Your task to perform on an android device: manage bookmarks in the chrome app Image 0: 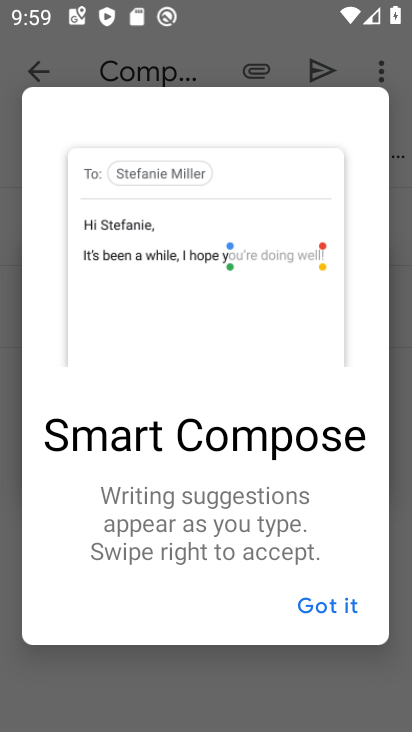
Step 0: press home button
Your task to perform on an android device: manage bookmarks in the chrome app Image 1: 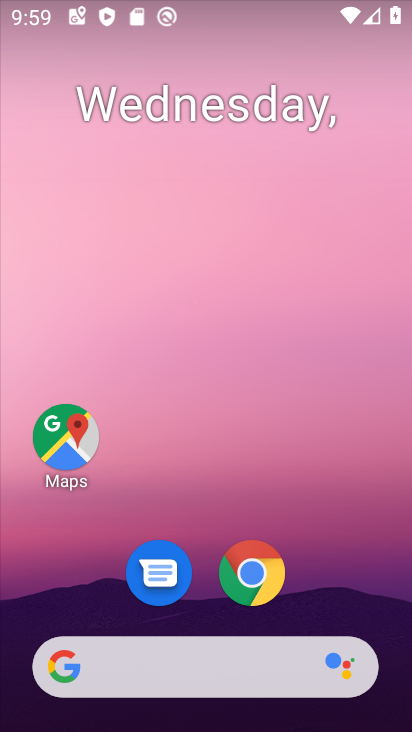
Step 1: drag from (364, 589) to (375, 252)
Your task to perform on an android device: manage bookmarks in the chrome app Image 2: 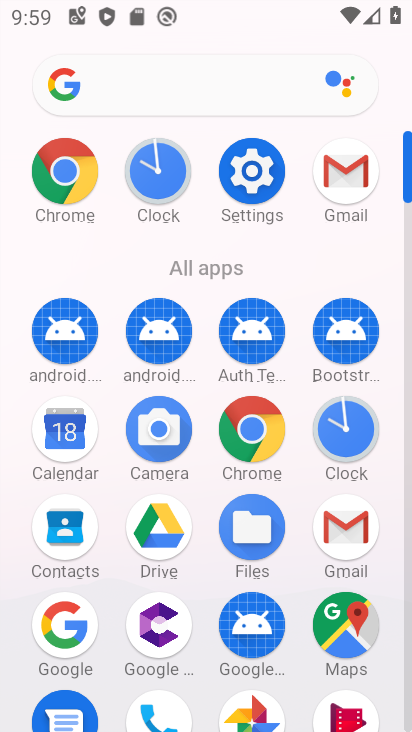
Step 2: click (273, 451)
Your task to perform on an android device: manage bookmarks in the chrome app Image 3: 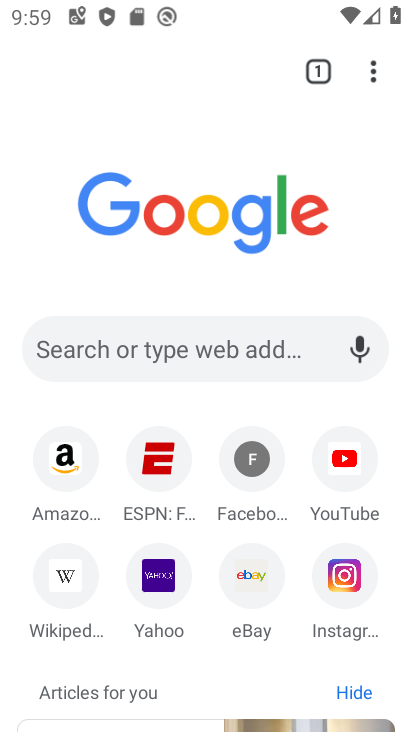
Step 3: click (373, 76)
Your task to perform on an android device: manage bookmarks in the chrome app Image 4: 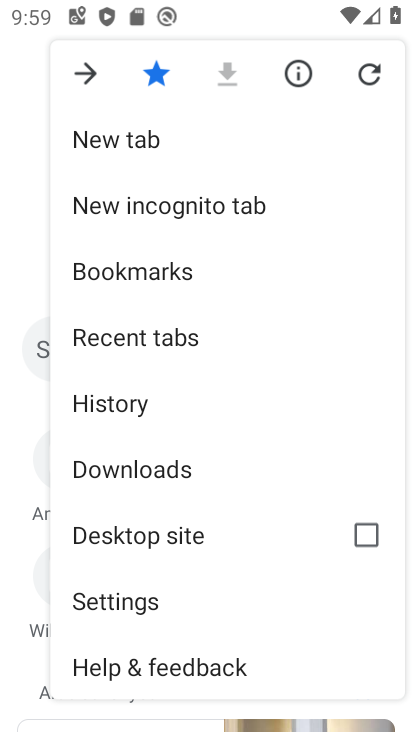
Step 4: drag from (278, 588) to (293, 452)
Your task to perform on an android device: manage bookmarks in the chrome app Image 5: 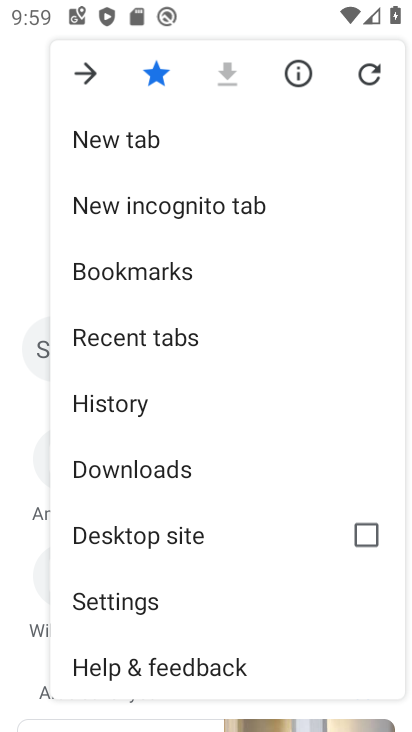
Step 5: drag from (293, 282) to (281, 488)
Your task to perform on an android device: manage bookmarks in the chrome app Image 6: 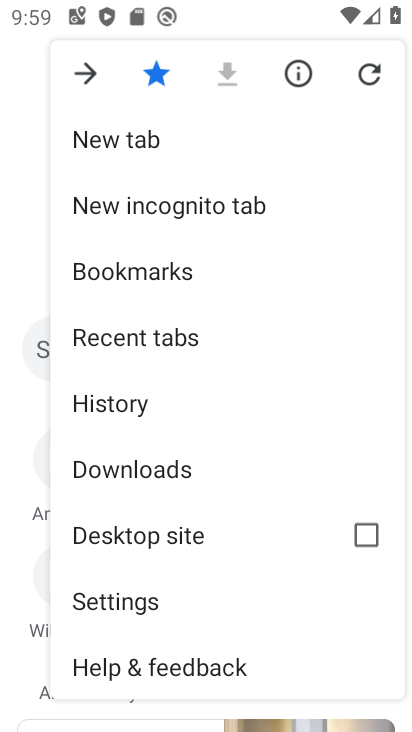
Step 6: click (196, 270)
Your task to perform on an android device: manage bookmarks in the chrome app Image 7: 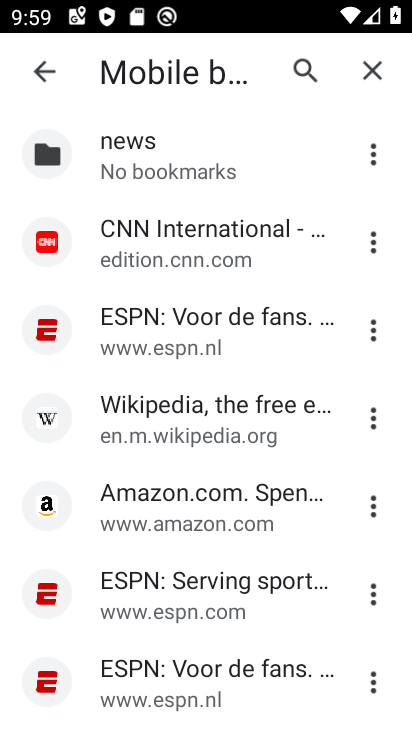
Step 7: drag from (313, 599) to (326, 406)
Your task to perform on an android device: manage bookmarks in the chrome app Image 8: 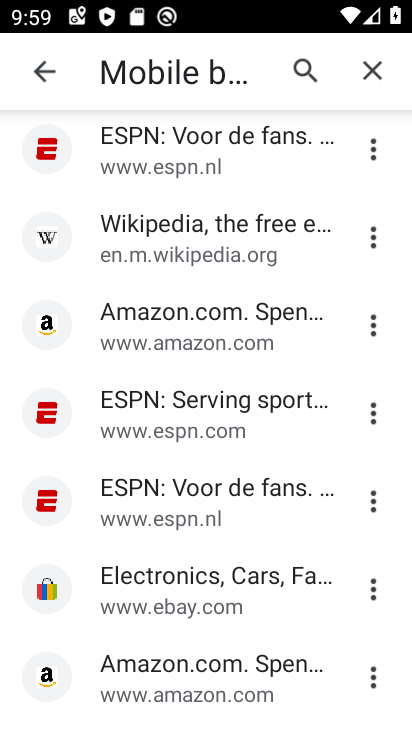
Step 8: drag from (323, 627) to (339, 463)
Your task to perform on an android device: manage bookmarks in the chrome app Image 9: 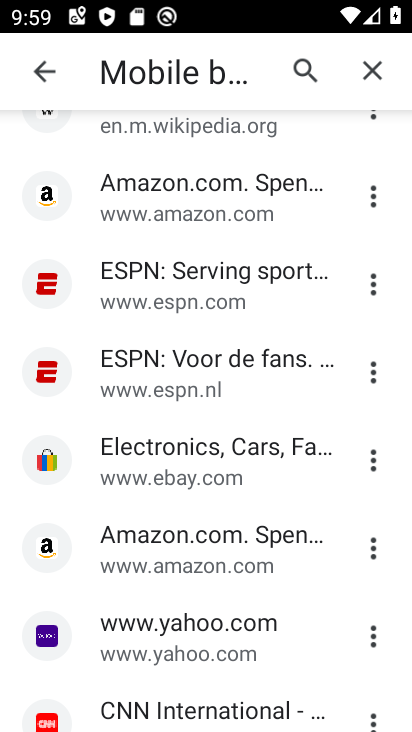
Step 9: drag from (326, 229) to (324, 503)
Your task to perform on an android device: manage bookmarks in the chrome app Image 10: 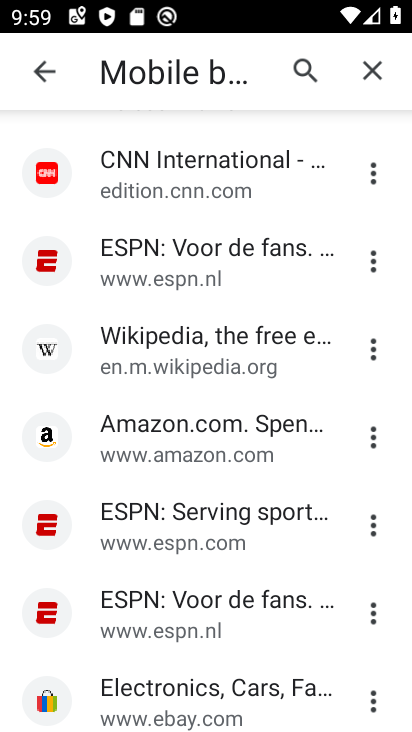
Step 10: drag from (336, 192) to (332, 480)
Your task to perform on an android device: manage bookmarks in the chrome app Image 11: 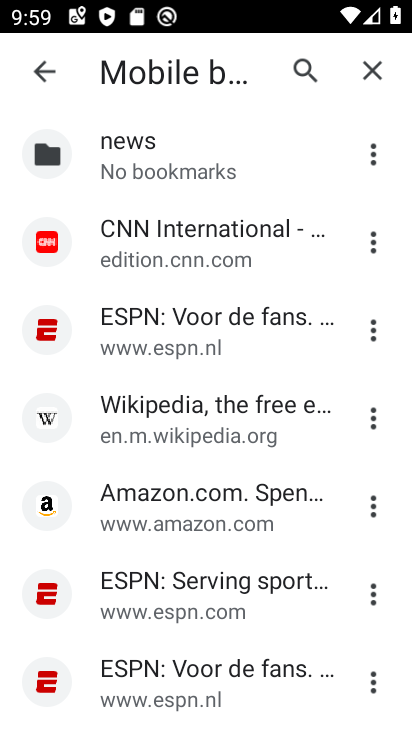
Step 11: click (372, 164)
Your task to perform on an android device: manage bookmarks in the chrome app Image 12: 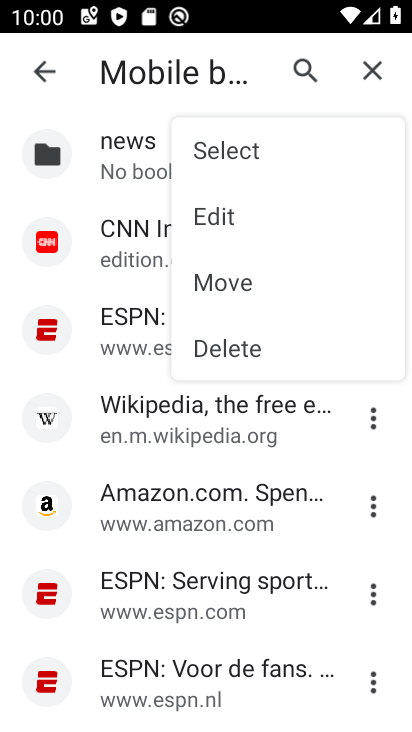
Step 12: click (242, 220)
Your task to perform on an android device: manage bookmarks in the chrome app Image 13: 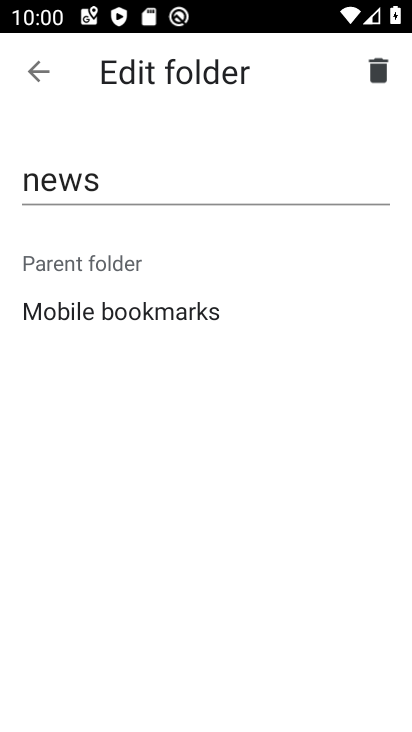
Step 13: click (159, 194)
Your task to perform on an android device: manage bookmarks in the chrome app Image 14: 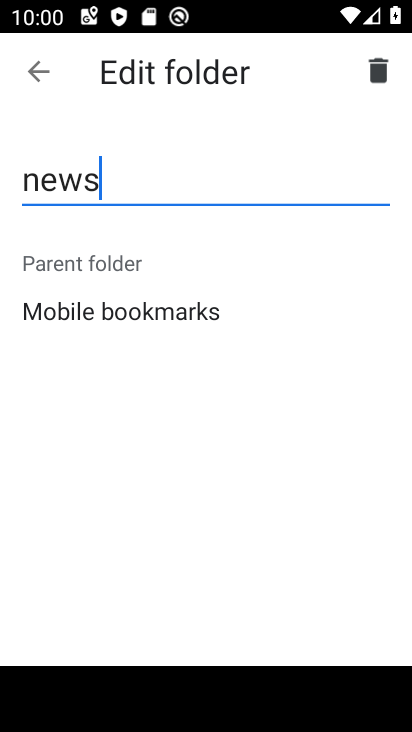
Step 14: type "sss"
Your task to perform on an android device: manage bookmarks in the chrome app Image 15: 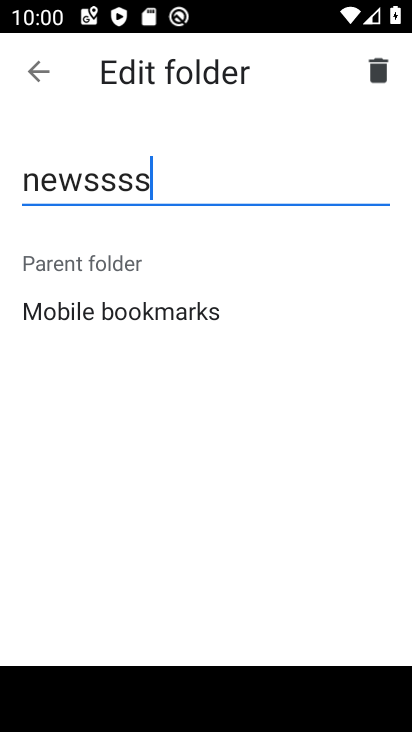
Step 15: click (24, 73)
Your task to perform on an android device: manage bookmarks in the chrome app Image 16: 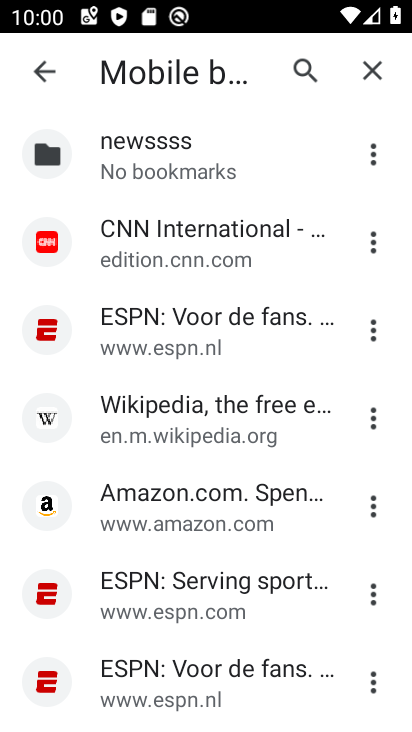
Step 16: task complete